Your task to perform on an android device: Go to ESPN.com Image 0: 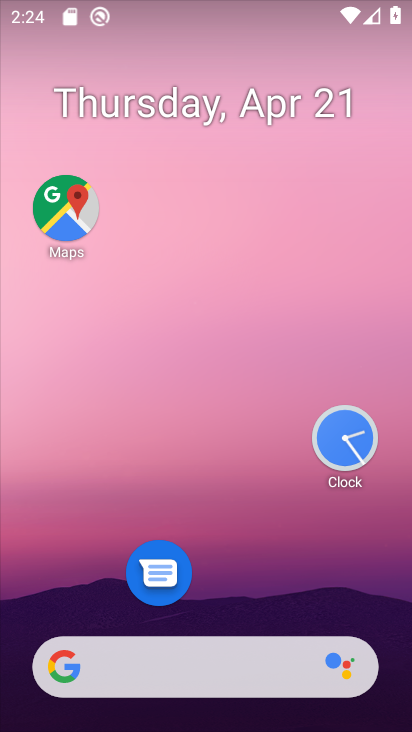
Step 0: drag from (272, 595) to (214, 201)
Your task to perform on an android device: Go to ESPN.com Image 1: 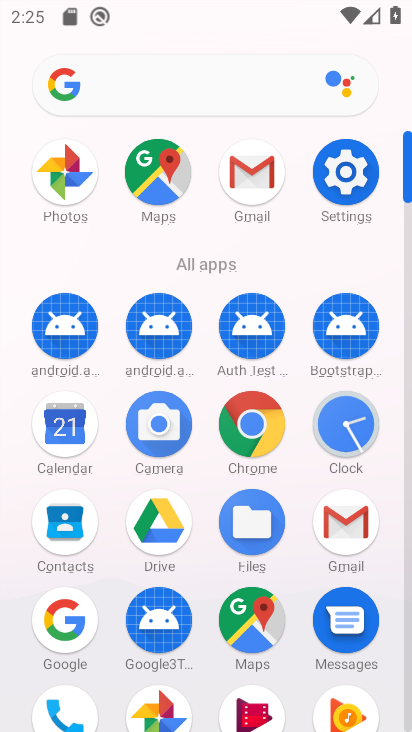
Step 1: click (257, 421)
Your task to perform on an android device: Go to ESPN.com Image 2: 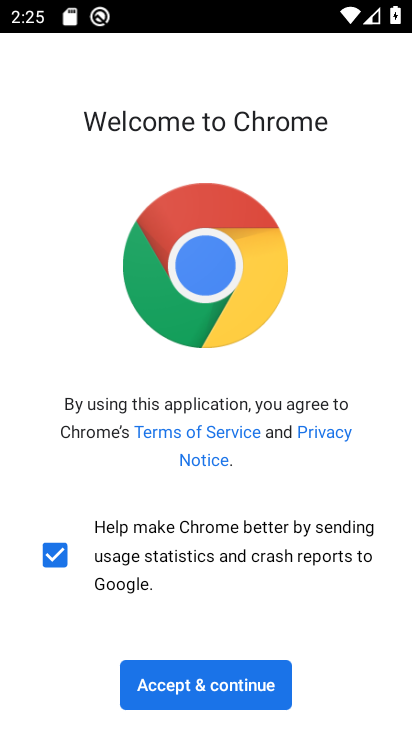
Step 2: click (211, 701)
Your task to perform on an android device: Go to ESPN.com Image 3: 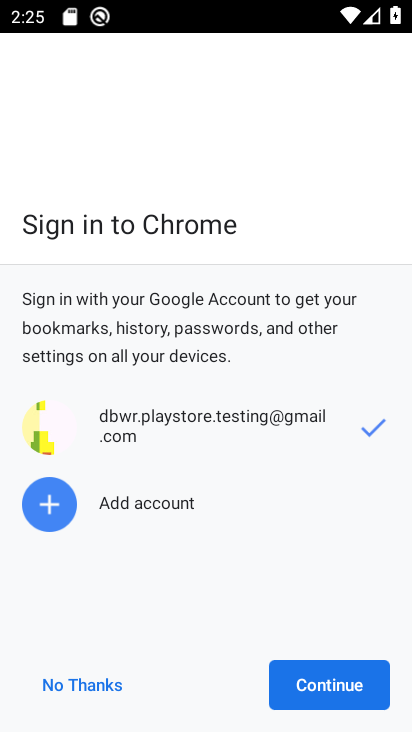
Step 3: click (289, 686)
Your task to perform on an android device: Go to ESPN.com Image 4: 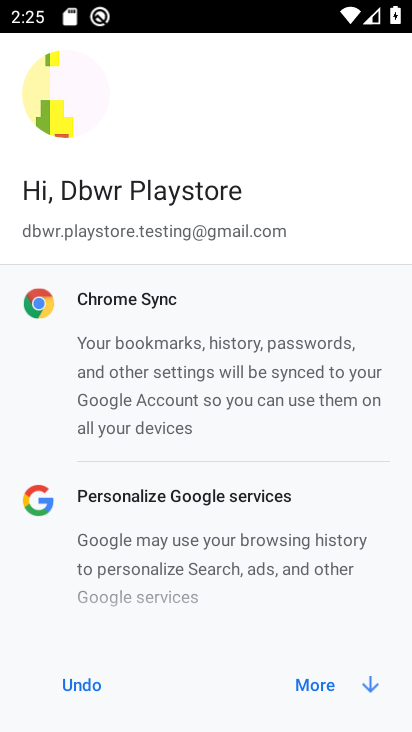
Step 4: click (328, 682)
Your task to perform on an android device: Go to ESPN.com Image 5: 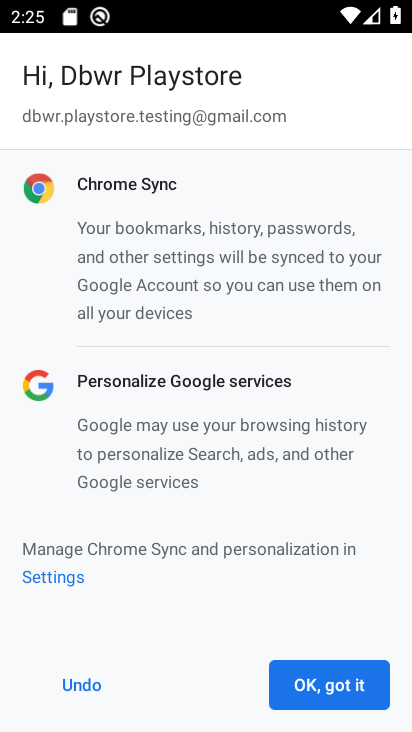
Step 5: click (327, 681)
Your task to perform on an android device: Go to ESPN.com Image 6: 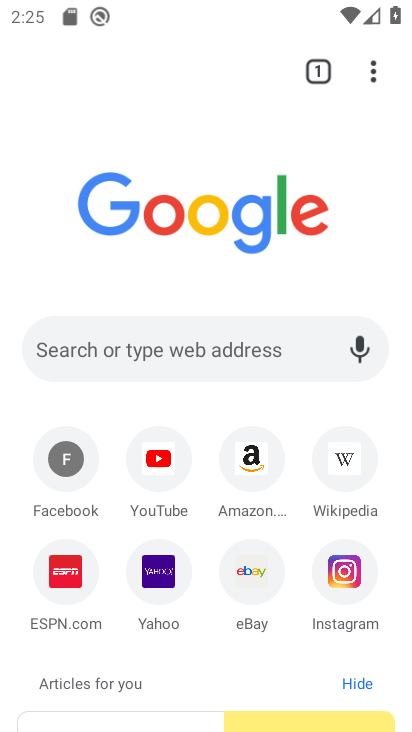
Step 6: click (193, 345)
Your task to perform on an android device: Go to ESPN.com Image 7: 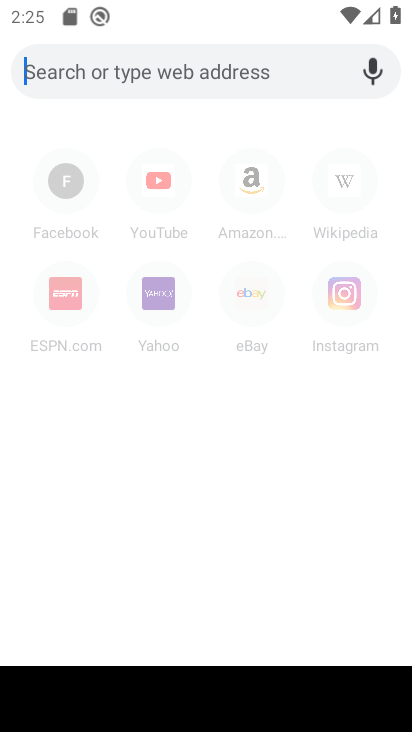
Step 7: type "ESPN.com"
Your task to perform on an android device: Go to ESPN.com Image 8: 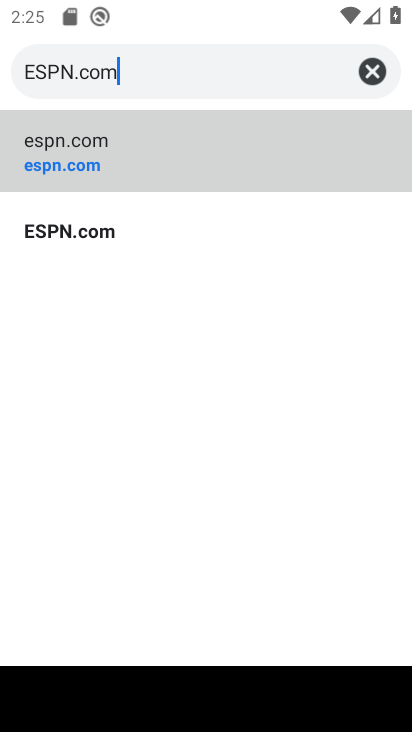
Step 8: type ""
Your task to perform on an android device: Go to ESPN.com Image 9: 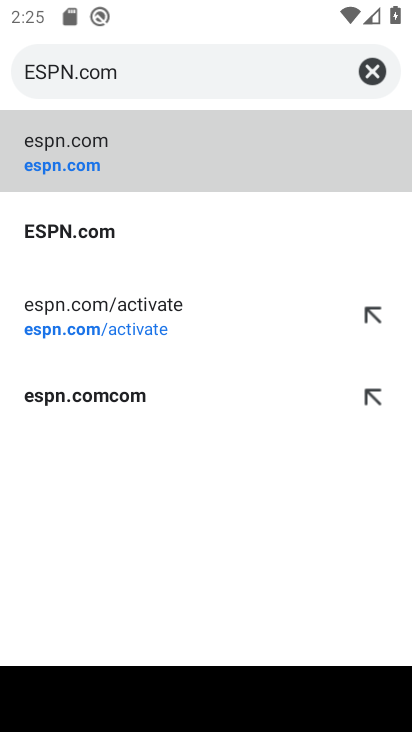
Step 9: click (138, 160)
Your task to perform on an android device: Go to ESPN.com Image 10: 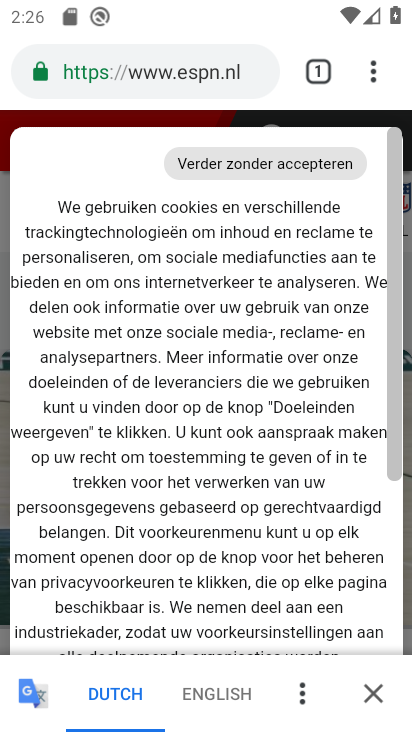
Step 10: task complete